Your task to perform on an android device: Go to ESPN.com Image 0: 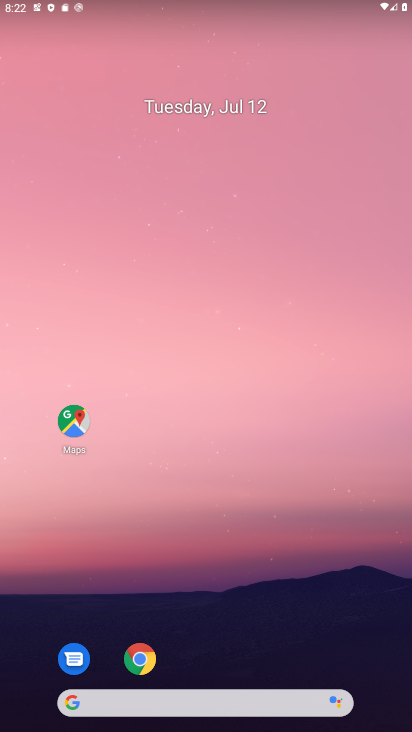
Step 0: click (140, 662)
Your task to perform on an android device: Go to ESPN.com Image 1: 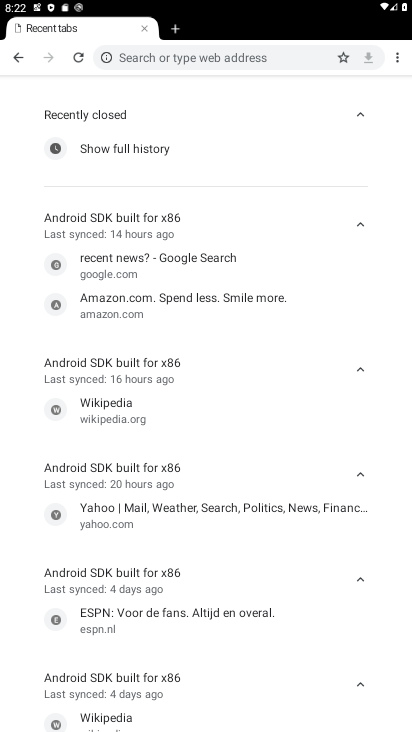
Step 1: click (221, 58)
Your task to perform on an android device: Go to ESPN.com Image 2: 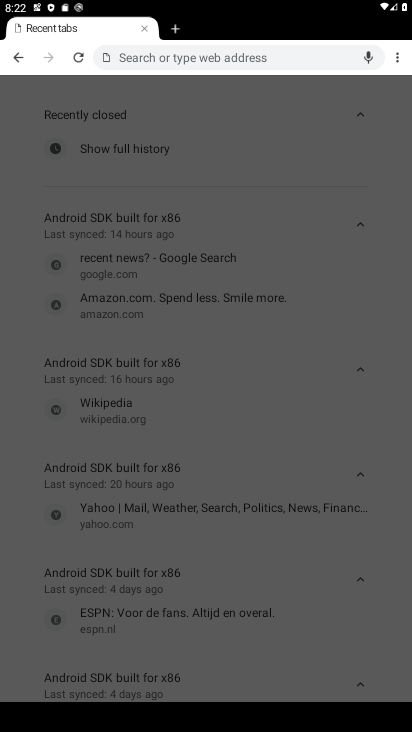
Step 2: type "ESPN.com"
Your task to perform on an android device: Go to ESPN.com Image 3: 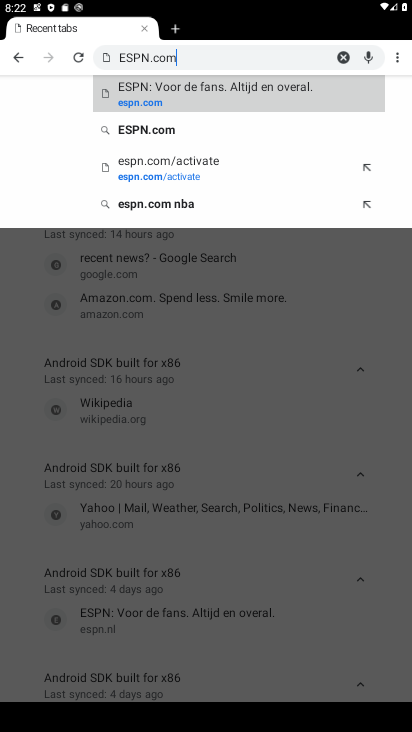
Step 3: click (149, 136)
Your task to perform on an android device: Go to ESPN.com Image 4: 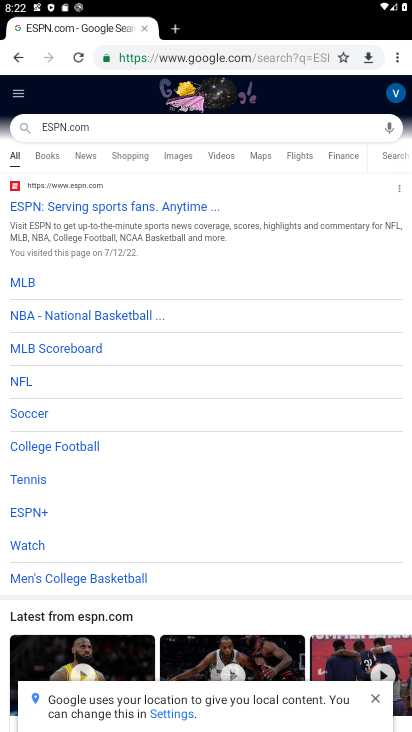
Step 4: click (94, 201)
Your task to perform on an android device: Go to ESPN.com Image 5: 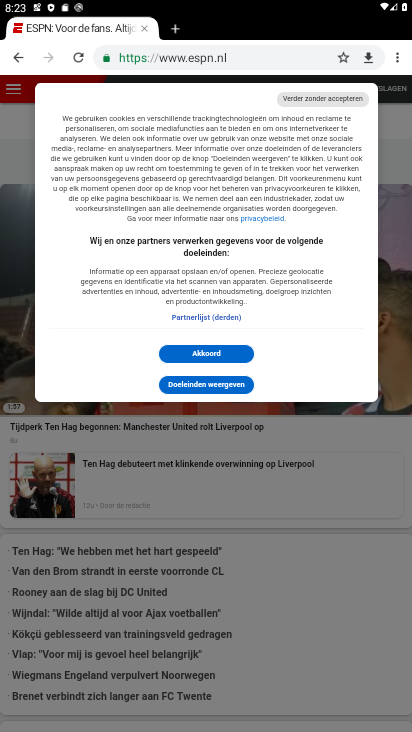
Step 5: task complete